Your task to perform on an android device: Search for 'The Girl on the Train' on Goodreads. Image 0: 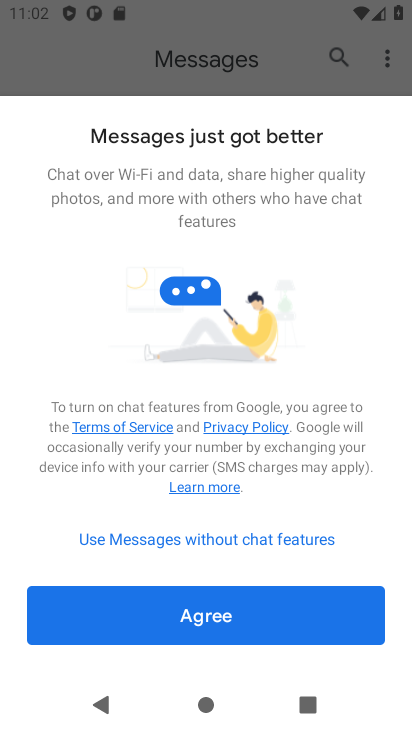
Step 0: press home button
Your task to perform on an android device: Search for 'The Girl on the Train' on Goodreads. Image 1: 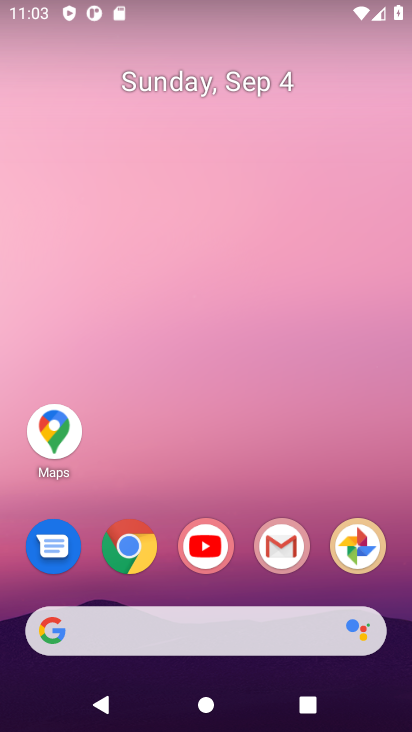
Step 1: click (125, 560)
Your task to perform on an android device: Search for 'The Girl on the Train' on Goodreads. Image 2: 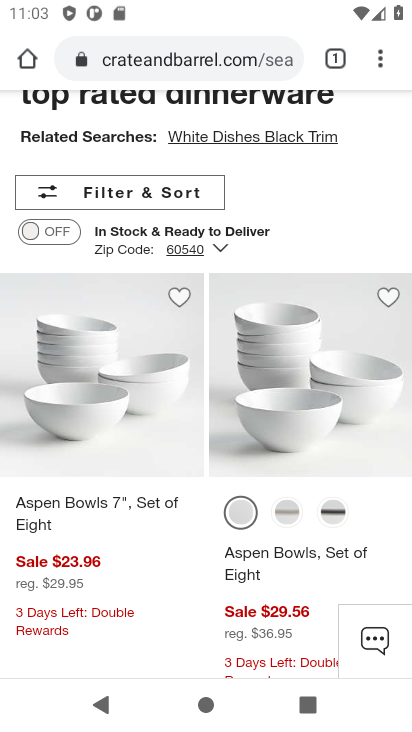
Step 2: click (147, 61)
Your task to perform on an android device: Search for 'The Girl on the Train' on Goodreads. Image 3: 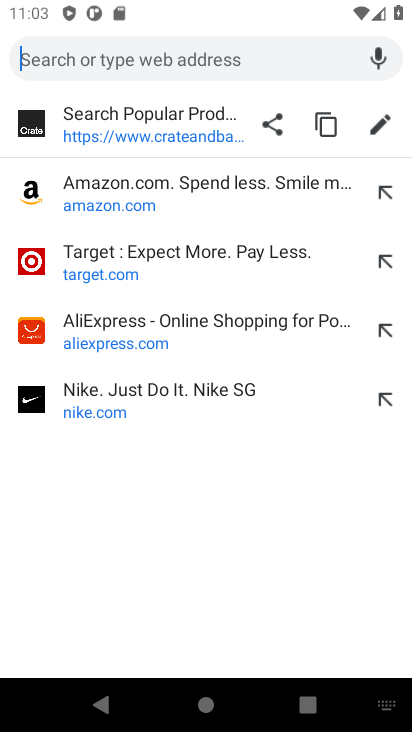
Step 3: type "Goodreads."
Your task to perform on an android device: Search for 'The Girl on the Train' on Goodreads. Image 4: 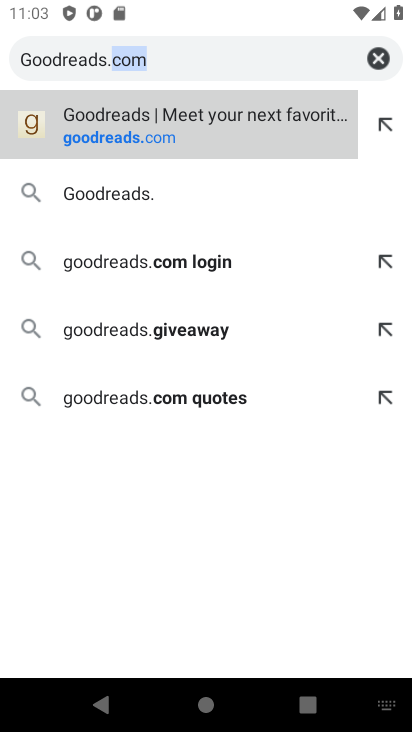
Step 4: click (112, 141)
Your task to perform on an android device: Search for 'The Girl on the Train' on Goodreads. Image 5: 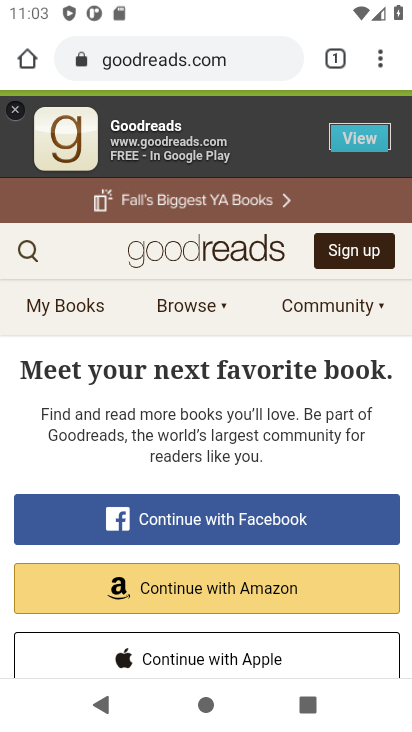
Step 5: click (22, 256)
Your task to perform on an android device: Search for 'The Girl on the Train' on Goodreads. Image 6: 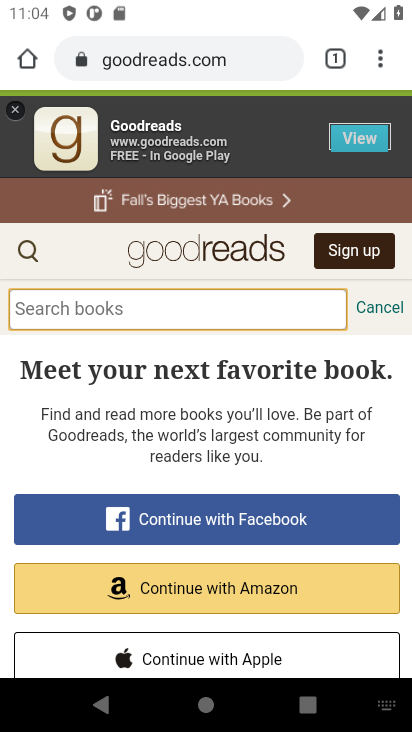
Step 6: type "The Girl on the Train"
Your task to perform on an android device: Search for 'The Girl on the Train' on Goodreads. Image 7: 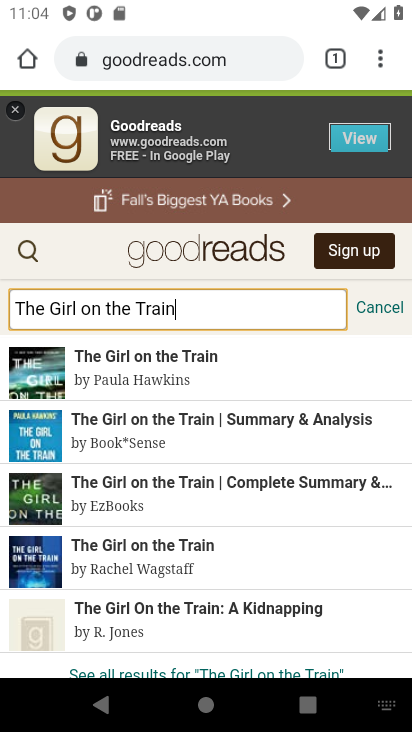
Step 7: task complete